Your task to perform on an android device: Open the calendar and show me this week's events? Image 0: 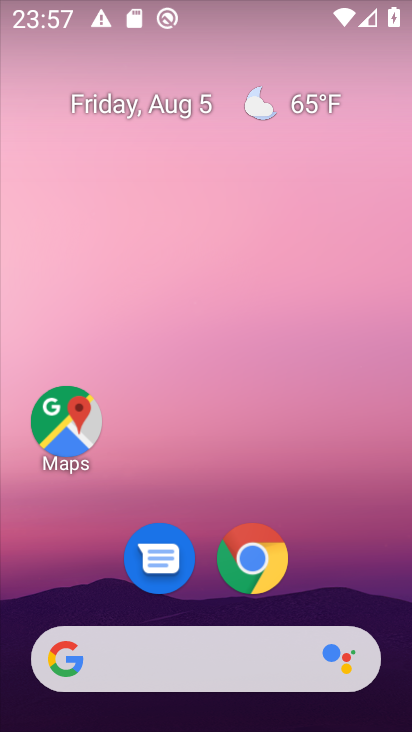
Step 0: press home button
Your task to perform on an android device: Open the calendar and show me this week's events? Image 1: 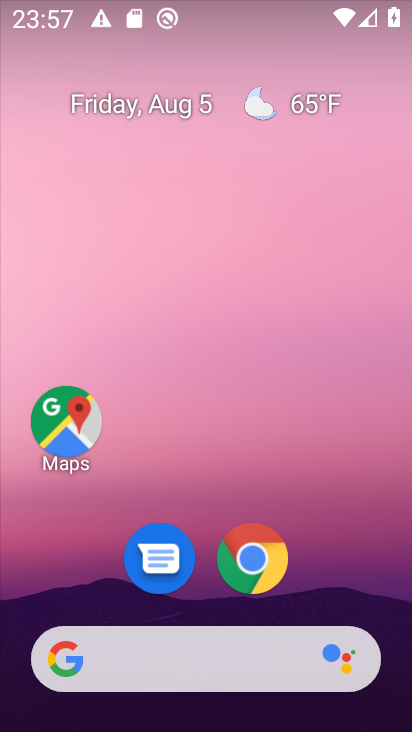
Step 1: drag from (346, 587) to (346, 157)
Your task to perform on an android device: Open the calendar and show me this week's events? Image 2: 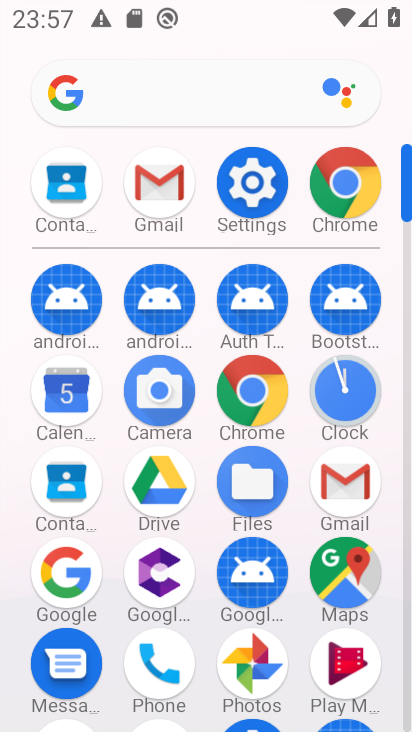
Step 2: click (64, 400)
Your task to perform on an android device: Open the calendar and show me this week's events? Image 3: 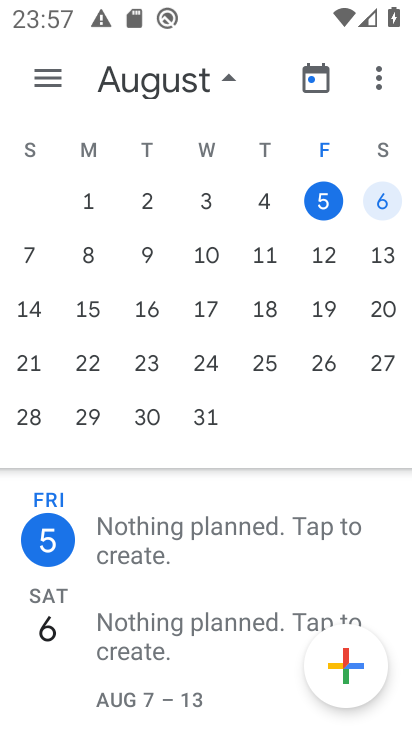
Step 3: task complete